Your task to perform on an android device: See recent photos Image 0: 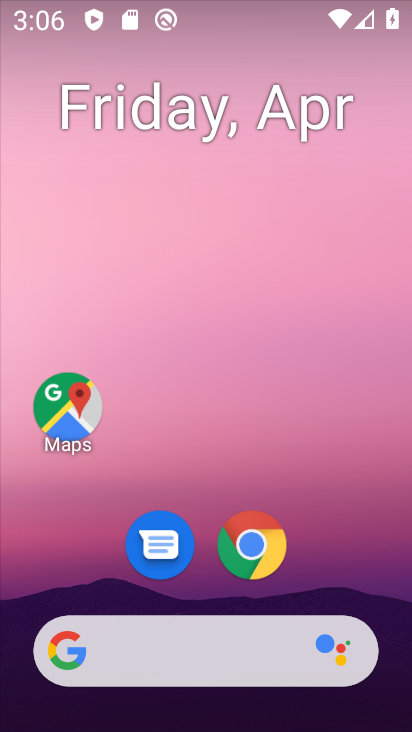
Step 0: drag from (389, 635) to (325, 143)
Your task to perform on an android device: See recent photos Image 1: 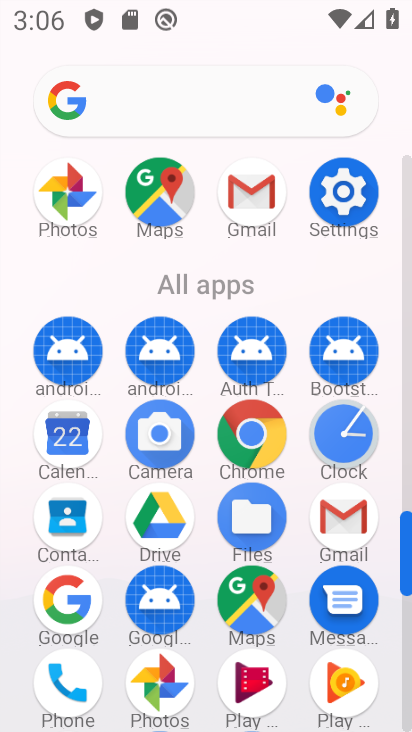
Step 1: click (404, 704)
Your task to perform on an android device: See recent photos Image 2: 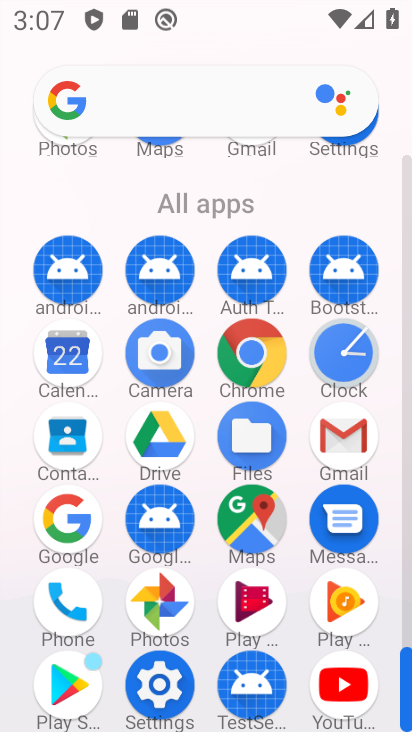
Step 2: click (160, 598)
Your task to perform on an android device: See recent photos Image 3: 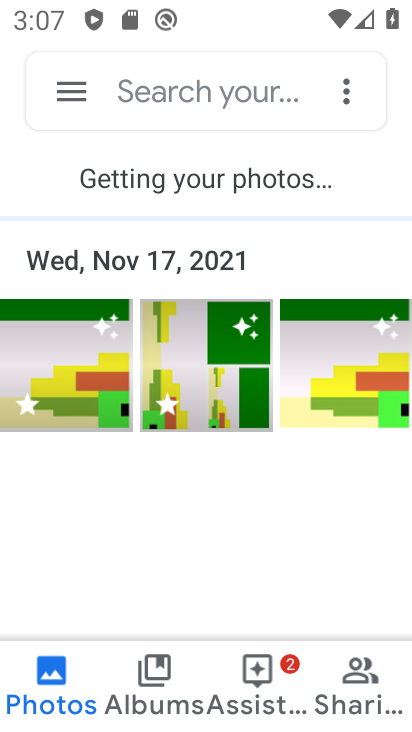
Step 3: task complete